Your task to perform on an android device: choose inbox layout in the gmail app Image 0: 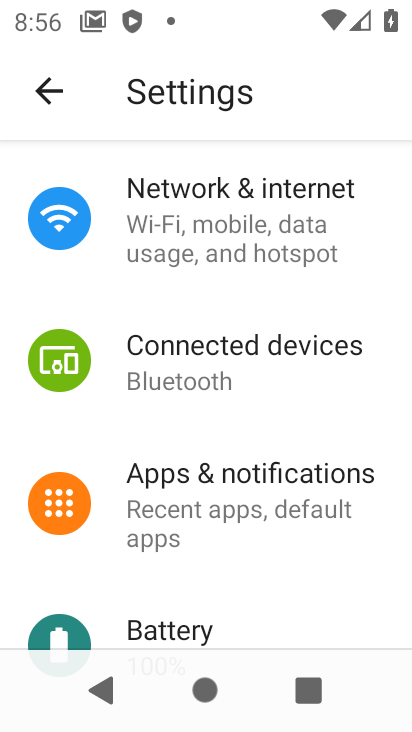
Step 0: press home button
Your task to perform on an android device: choose inbox layout in the gmail app Image 1: 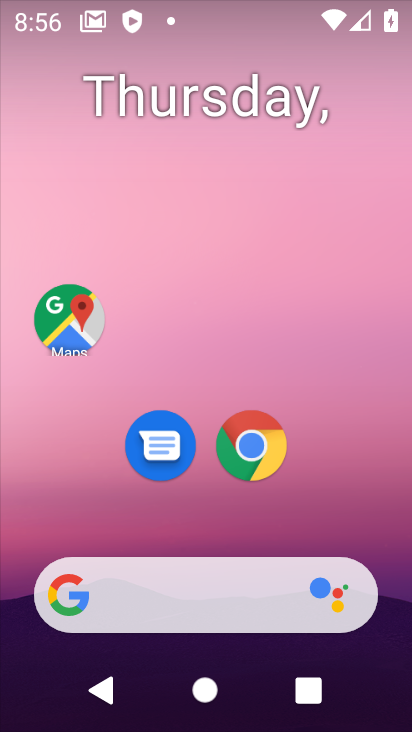
Step 1: drag from (320, 517) to (261, 167)
Your task to perform on an android device: choose inbox layout in the gmail app Image 2: 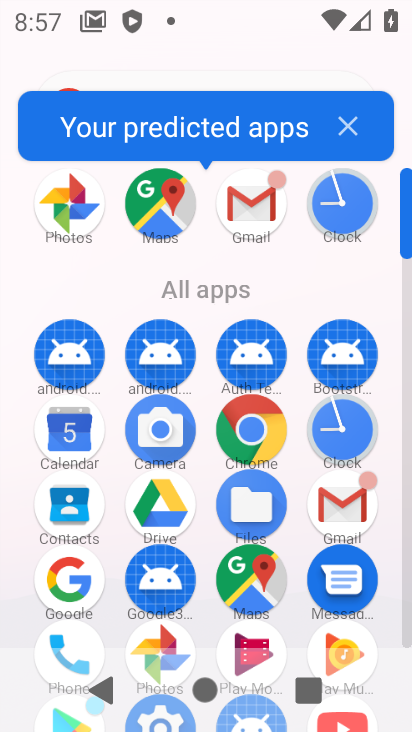
Step 2: click (248, 204)
Your task to perform on an android device: choose inbox layout in the gmail app Image 3: 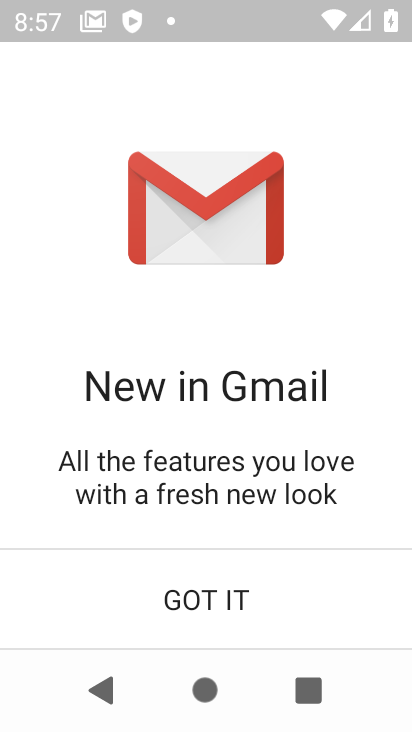
Step 3: click (217, 583)
Your task to perform on an android device: choose inbox layout in the gmail app Image 4: 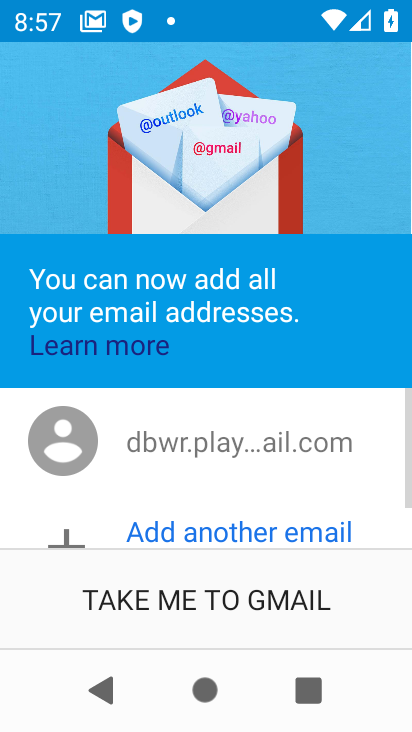
Step 4: click (195, 596)
Your task to perform on an android device: choose inbox layout in the gmail app Image 5: 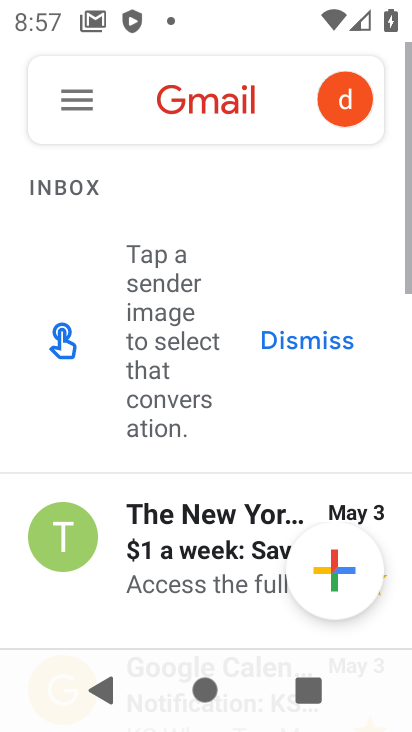
Step 5: click (72, 103)
Your task to perform on an android device: choose inbox layout in the gmail app Image 6: 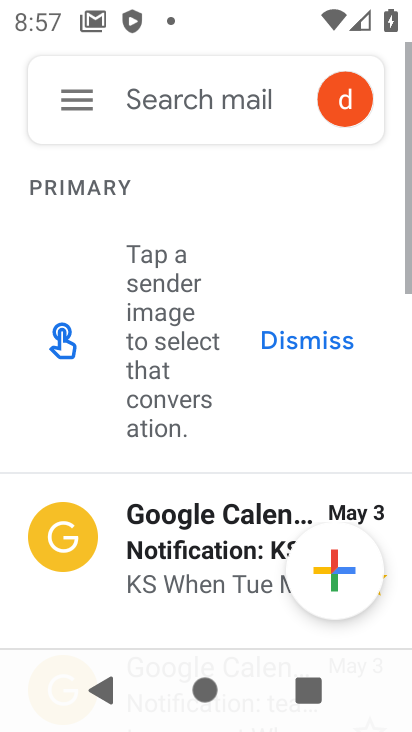
Step 6: click (75, 104)
Your task to perform on an android device: choose inbox layout in the gmail app Image 7: 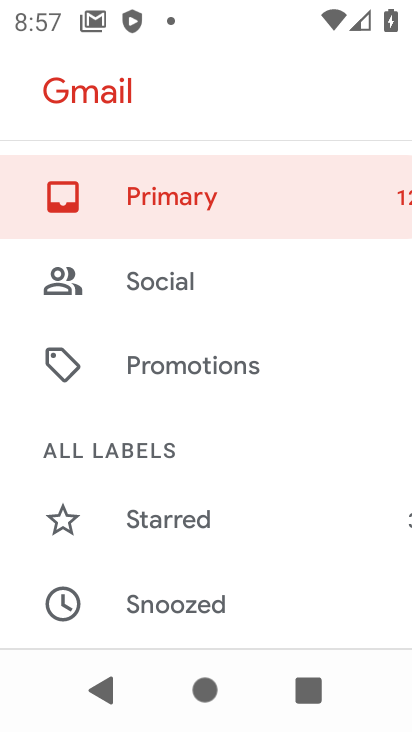
Step 7: drag from (191, 586) to (192, 281)
Your task to perform on an android device: choose inbox layout in the gmail app Image 8: 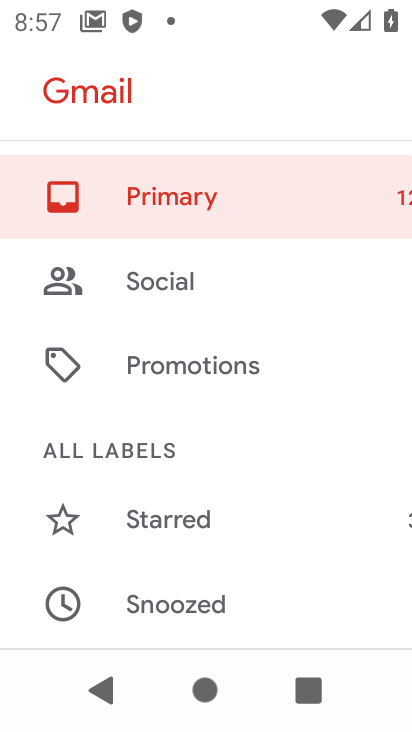
Step 8: drag from (240, 573) to (278, 249)
Your task to perform on an android device: choose inbox layout in the gmail app Image 9: 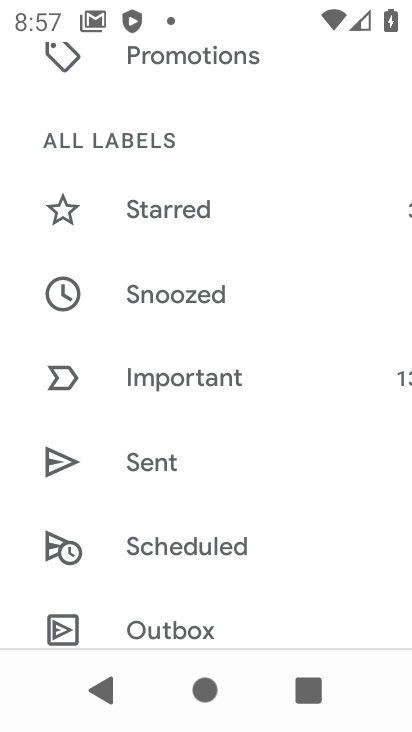
Step 9: drag from (220, 560) to (256, 210)
Your task to perform on an android device: choose inbox layout in the gmail app Image 10: 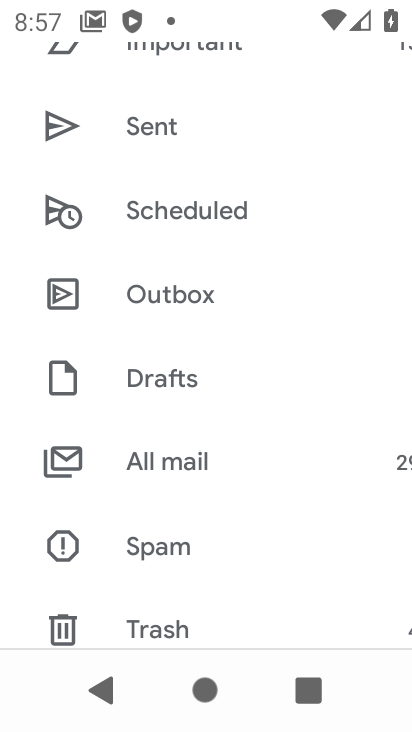
Step 10: drag from (192, 594) to (233, 292)
Your task to perform on an android device: choose inbox layout in the gmail app Image 11: 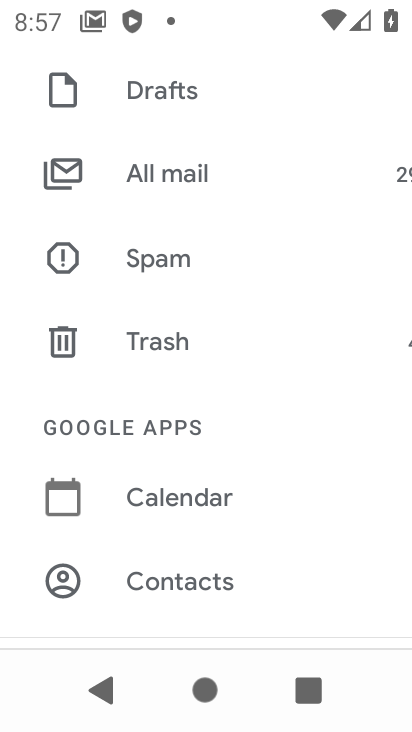
Step 11: drag from (207, 578) to (226, 272)
Your task to perform on an android device: choose inbox layout in the gmail app Image 12: 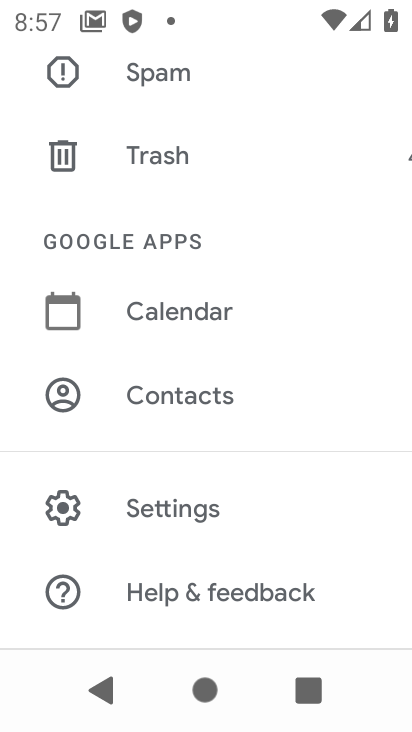
Step 12: click (199, 521)
Your task to perform on an android device: choose inbox layout in the gmail app Image 13: 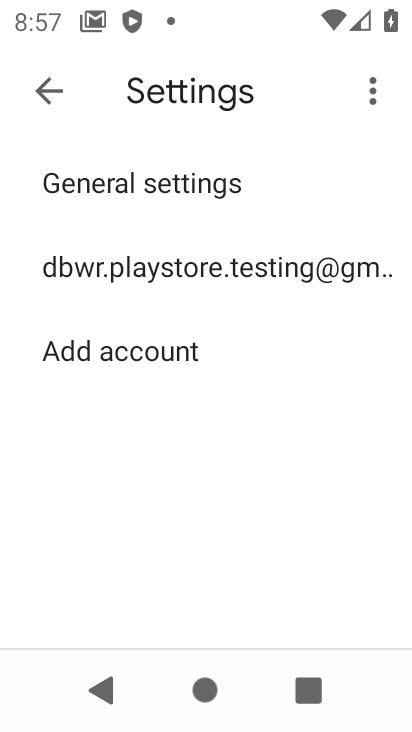
Step 13: click (234, 277)
Your task to perform on an android device: choose inbox layout in the gmail app Image 14: 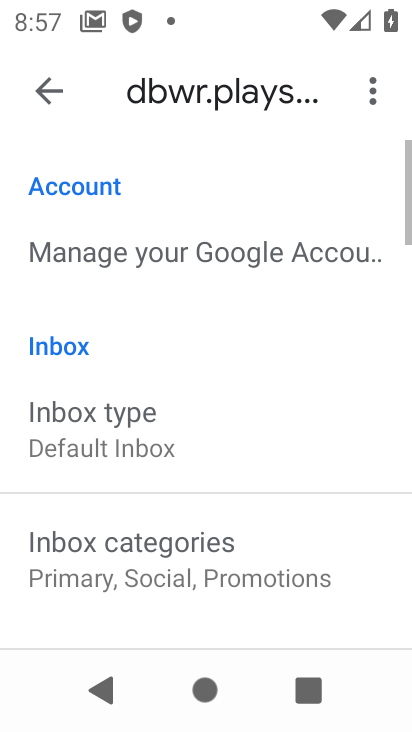
Step 14: click (172, 537)
Your task to perform on an android device: choose inbox layout in the gmail app Image 15: 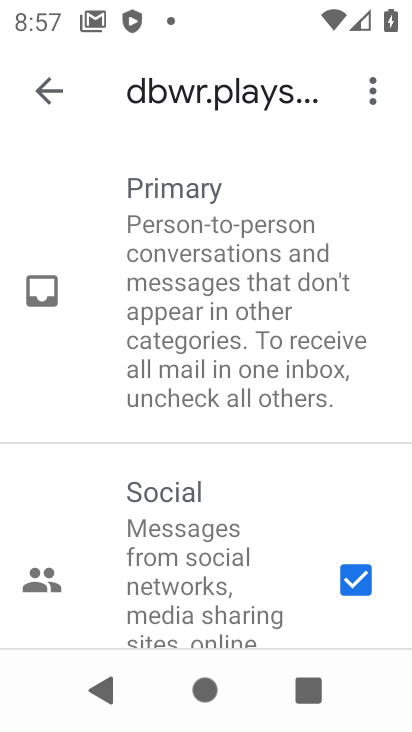
Step 15: press back button
Your task to perform on an android device: choose inbox layout in the gmail app Image 16: 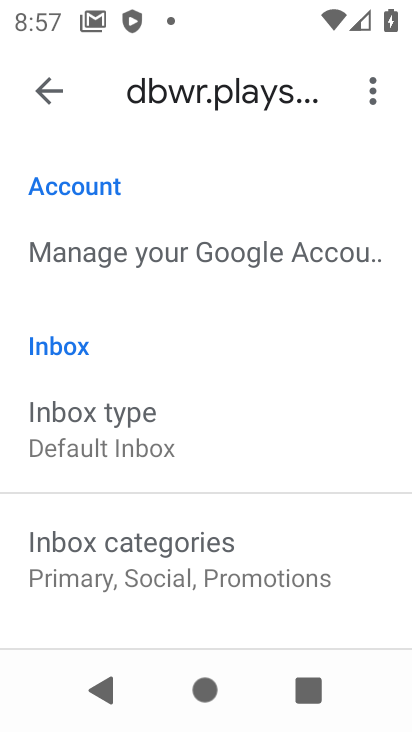
Step 16: click (121, 450)
Your task to perform on an android device: choose inbox layout in the gmail app Image 17: 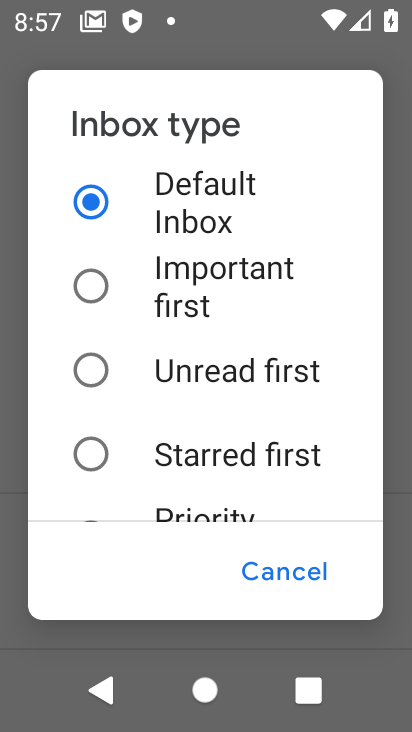
Step 17: click (105, 281)
Your task to perform on an android device: choose inbox layout in the gmail app Image 18: 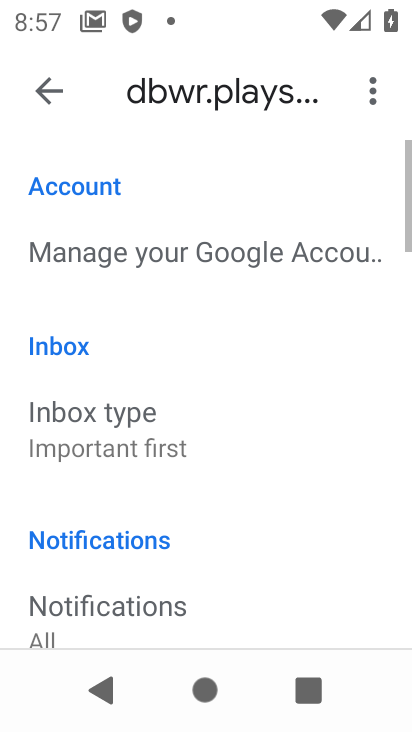
Step 18: task complete